Your task to perform on an android device: empty trash in google photos Image 0: 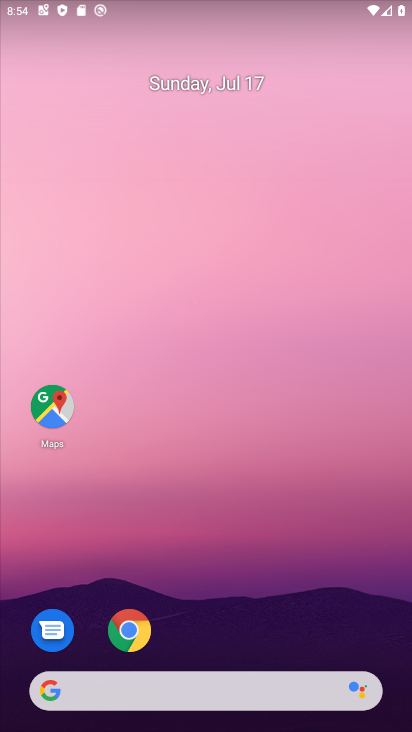
Step 0: drag from (343, 616) to (355, 147)
Your task to perform on an android device: empty trash in google photos Image 1: 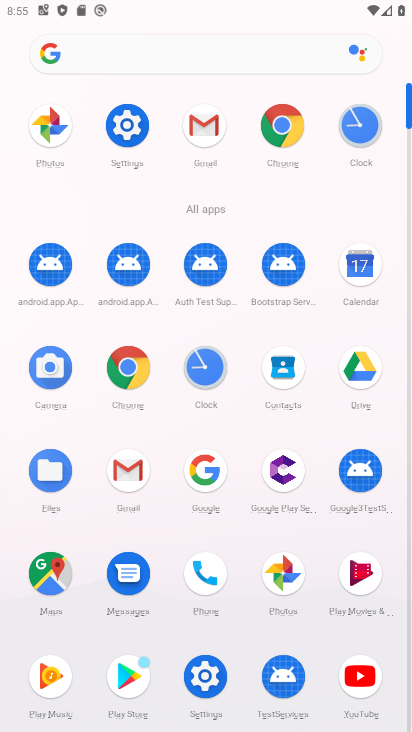
Step 1: click (285, 577)
Your task to perform on an android device: empty trash in google photos Image 2: 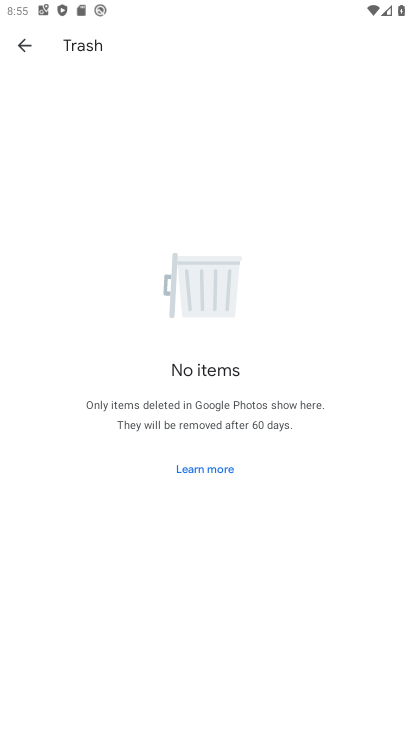
Step 2: task complete